Your task to perform on an android device: Go to Google Image 0: 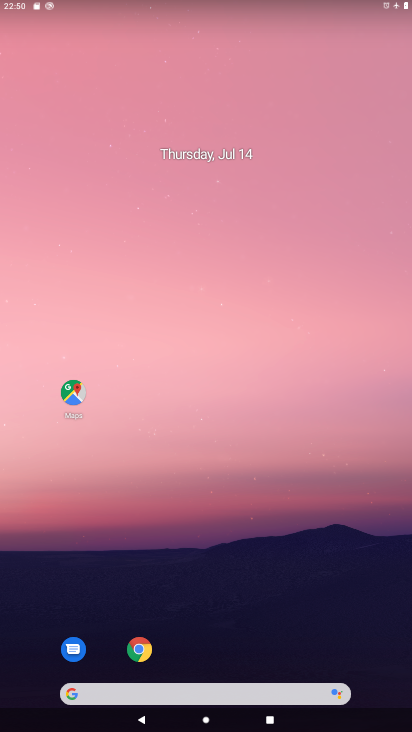
Step 0: drag from (164, 717) to (184, 4)
Your task to perform on an android device: Go to Google Image 1: 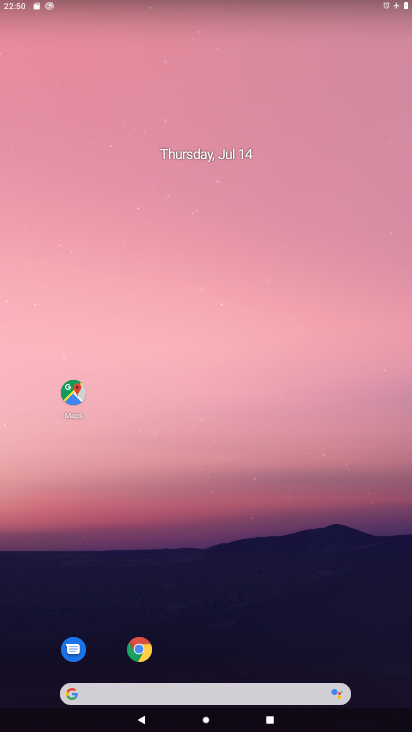
Step 1: drag from (198, 486) to (334, 336)
Your task to perform on an android device: Go to Google Image 2: 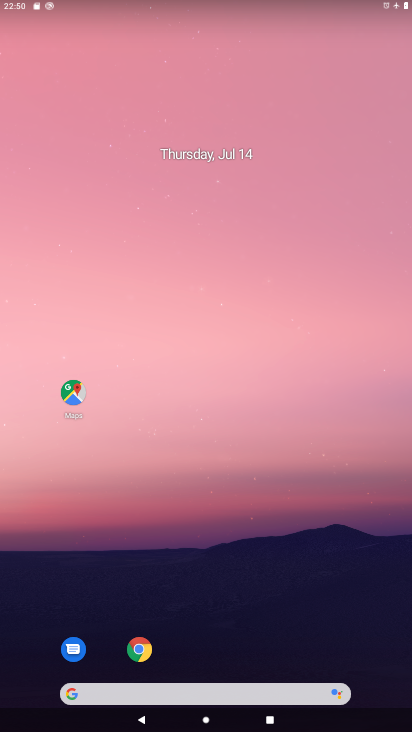
Step 2: drag from (186, 717) to (137, 51)
Your task to perform on an android device: Go to Google Image 3: 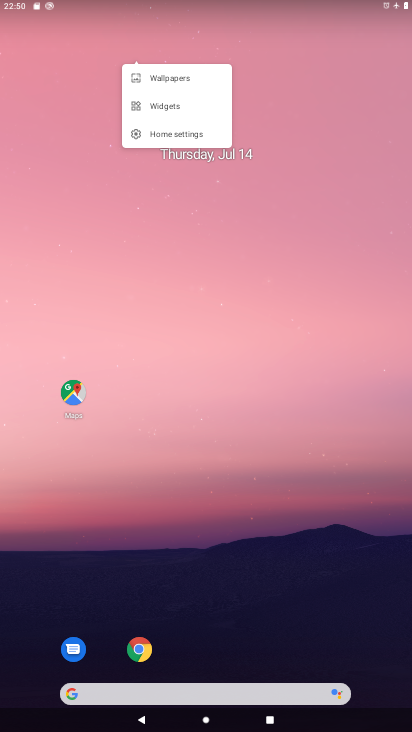
Step 3: click (170, 718)
Your task to perform on an android device: Go to Google Image 4: 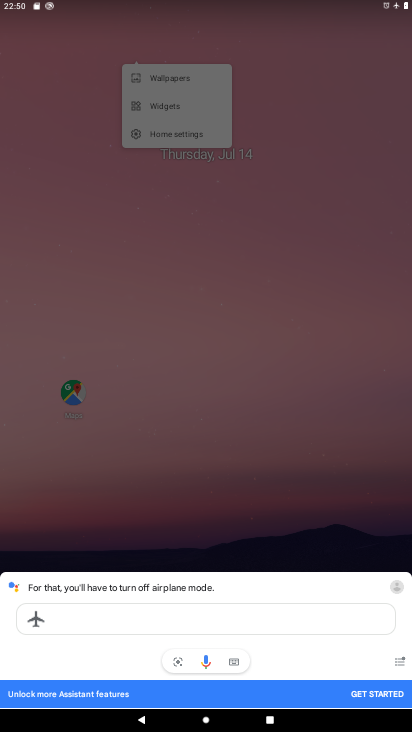
Step 4: press home button
Your task to perform on an android device: Go to Google Image 5: 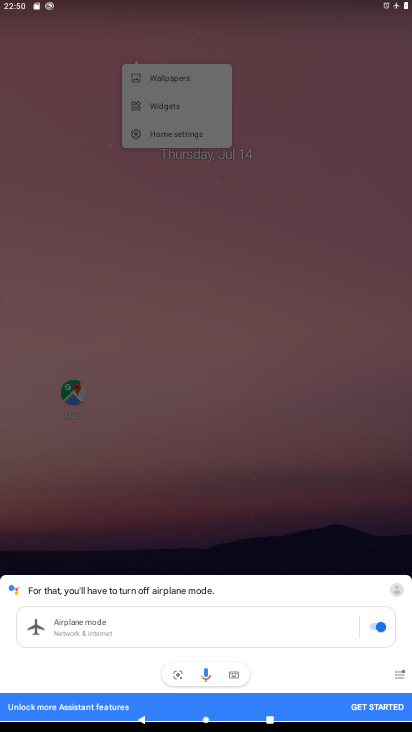
Step 5: drag from (170, 706) to (368, 610)
Your task to perform on an android device: Go to Google Image 6: 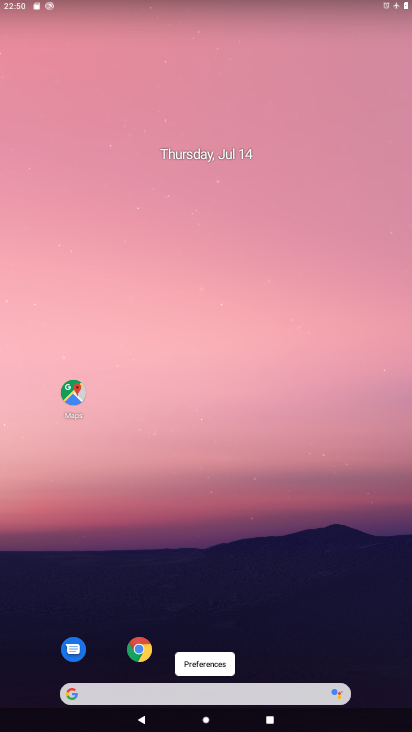
Step 6: drag from (234, 685) to (240, 17)
Your task to perform on an android device: Go to Google Image 7: 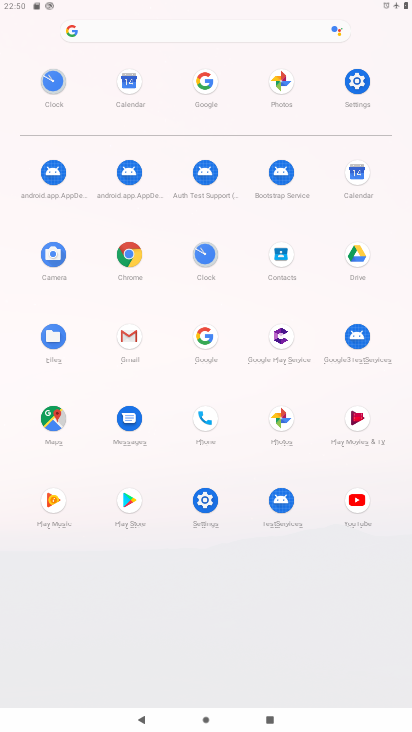
Step 7: click (196, 339)
Your task to perform on an android device: Go to Google Image 8: 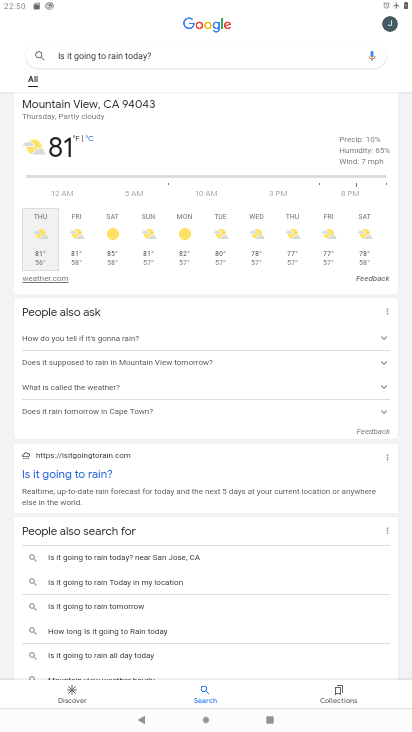
Step 8: task complete